Your task to perform on an android device: stop showing notifications on the lock screen Image 0: 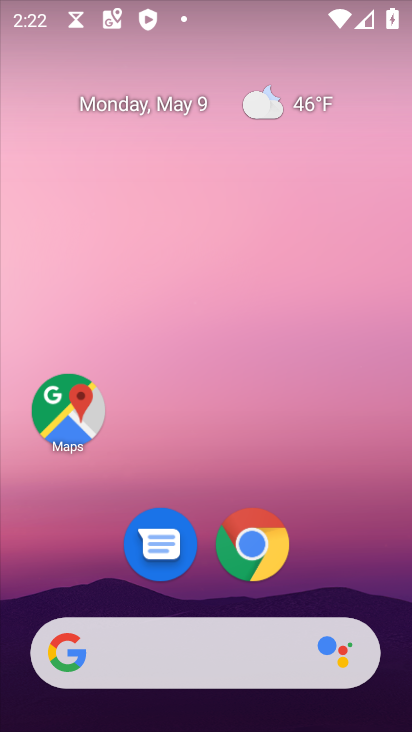
Step 0: drag from (340, 541) to (83, 181)
Your task to perform on an android device: stop showing notifications on the lock screen Image 1: 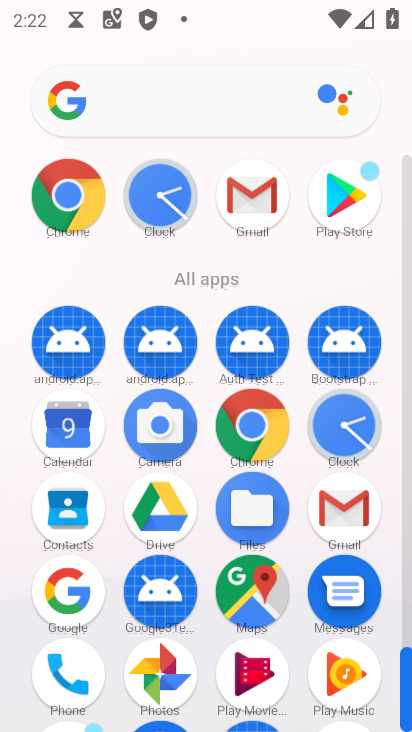
Step 1: drag from (208, 681) to (199, 240)
Your task to perform on an android device: stop showing notifications on the lock screen Image 2: 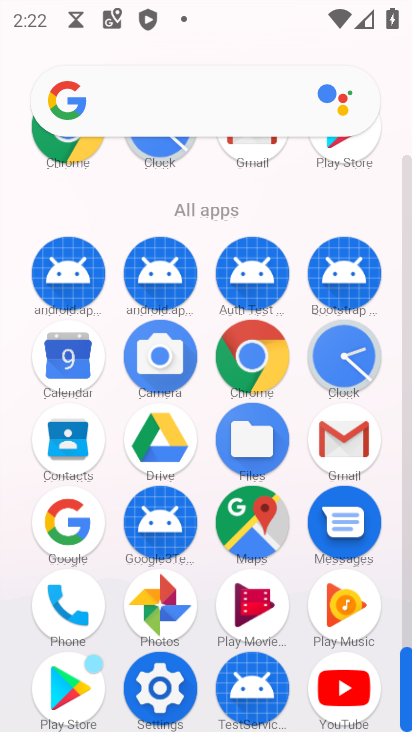
Step 2: click (163, 687)
Your task to perform on an android device: stop showing notifications on the lock screen Image 3: 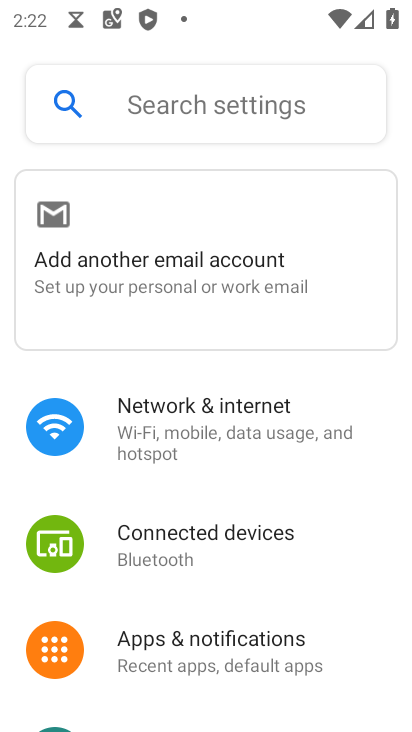
Step 3: click (162, 663)
Your task to perform on an android device: stop showing notifications on the lock screen Image 4: 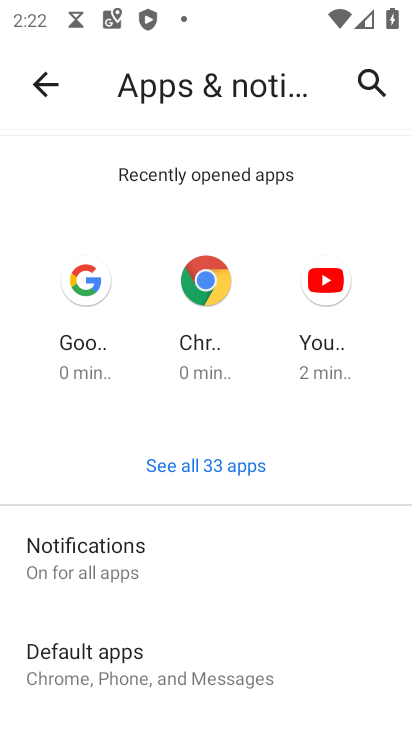
Step 4: click (123, 570)
Your task to perform on an android device: stop showing notifications on the lock screen Image 5: 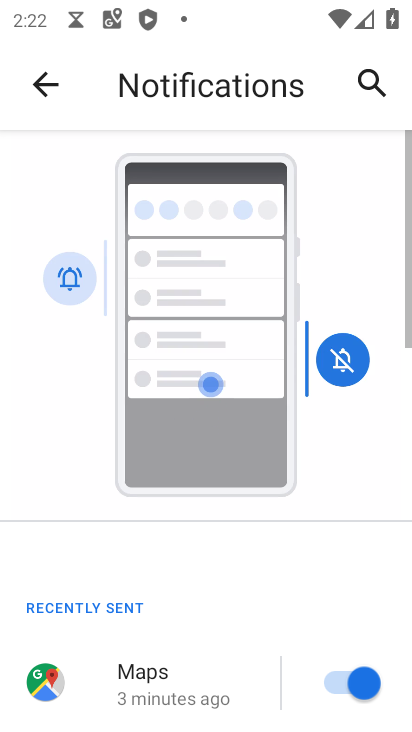
Step 5: drag from (101, 661) to (114, 268)
Your task to perform on an android device: stop showing notifications on the lock screen Image 6: 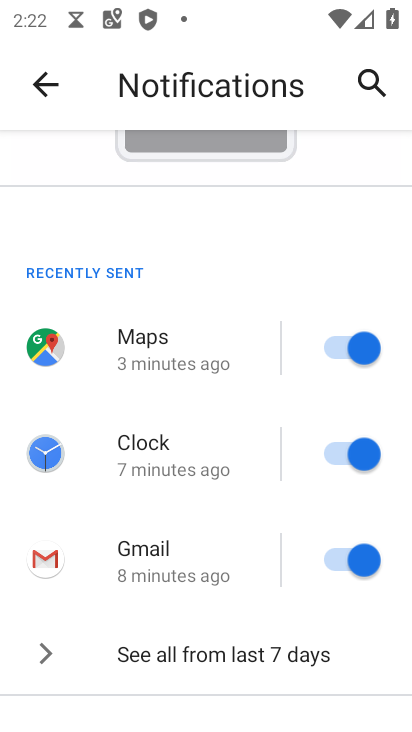
Step 6: drag from (101, 648) to (113, 334)
Your task to perform on an android device: stop showing notifications on the lock screen Image 7: 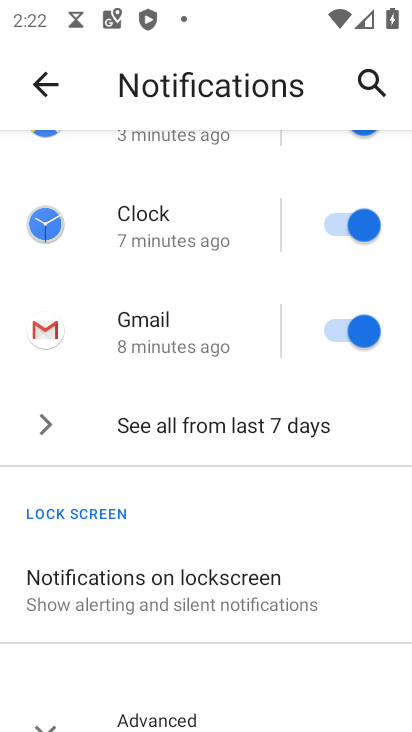
Step 7: click (108, 610)
Your task to perform on an android device: stop showing notifications on the lock screen Image 8: 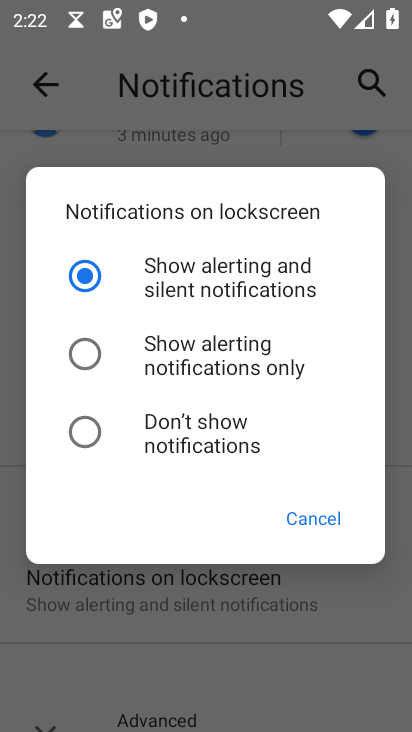
Step 8: click (171, 415)
Your task to perform on an android device: stop showing notifications on the lock screen Image 9: 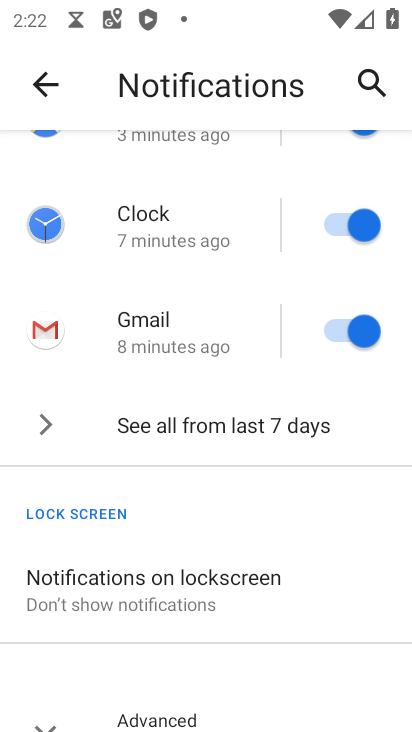
Step 9: task complete